Your task to perform on an android device: clear history in the chrome app Image 0: 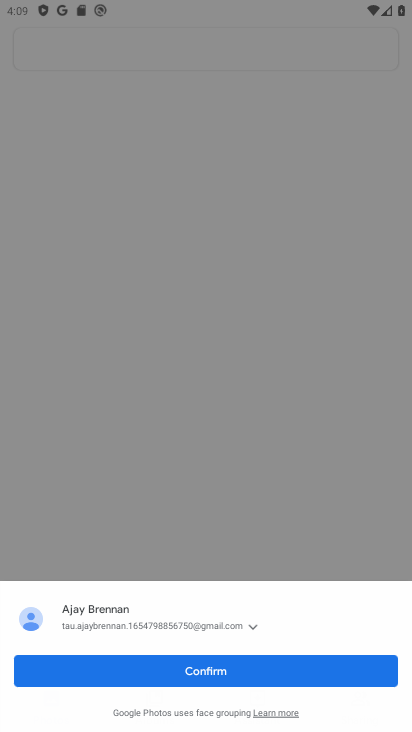
Step 0: press home button
Your task to perform on an android device: clear history in the chrome app Image 1: 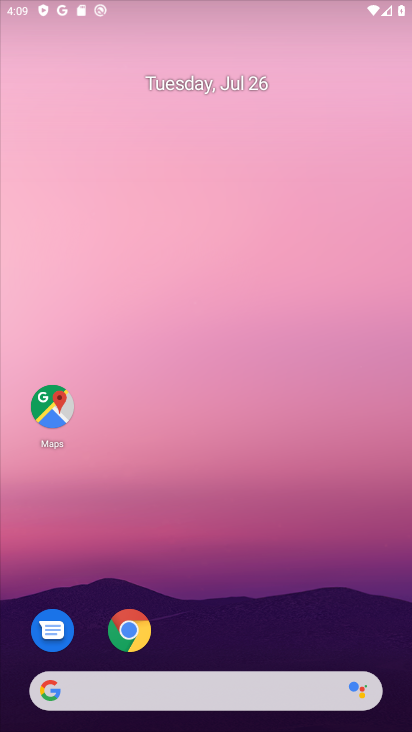
Step 1: drag from (285, 555) to (261, 80)
Your task to perform on an android device: clear history in the chrome app Image 2: 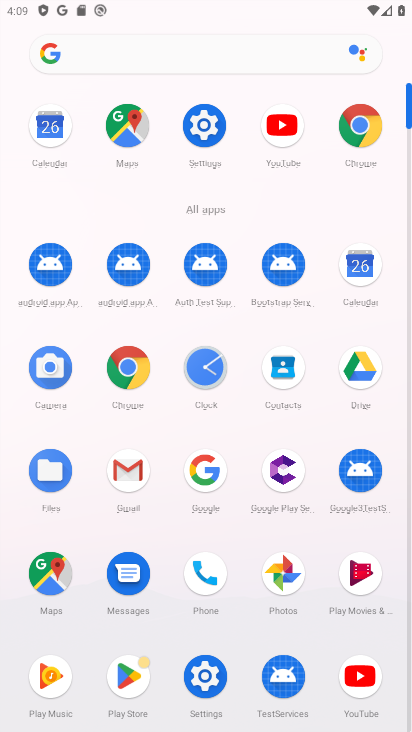
Step 2: click (357, 121)
Your task to perform on an android device: clear history in the chrome app Image 3: 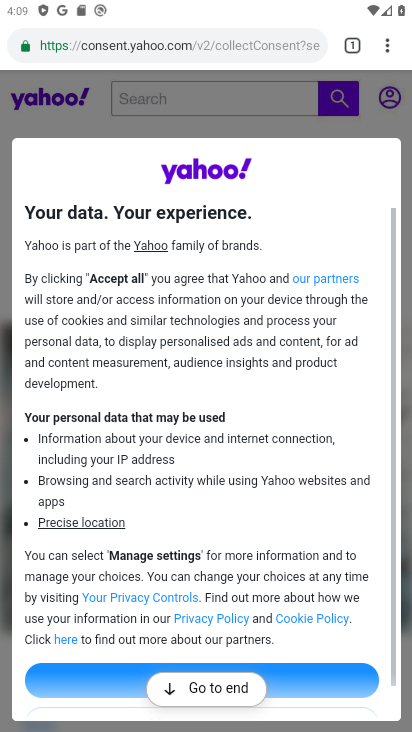
Step 3: drag from (383, 46) to (221, 271)
Your task to perform on an android device: clear history in the chrome app Image 4: 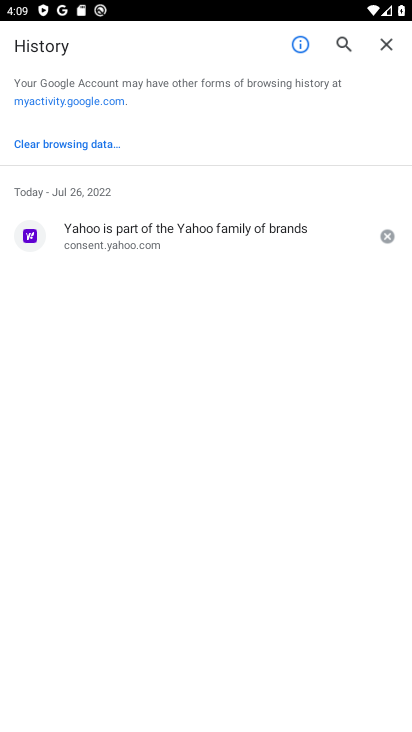
Step 4: click (83, 148)
Your task to perform on an android device: clear history in the chrome app Image 5: 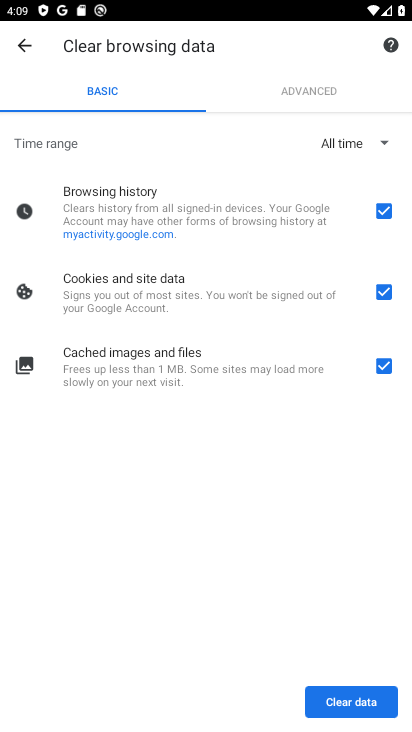
Step 5: click (359, 702)
Your task to perform on an android device: clear history in the chrome app Image 6: 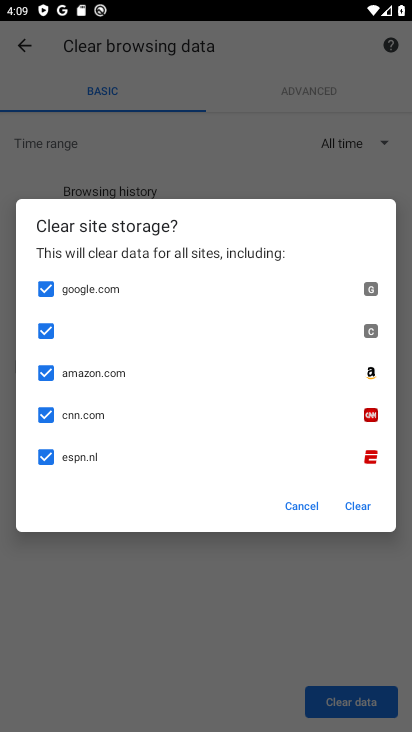
Step 6: click (368, 508)
Your task to perform on an android device: clear history in the chrome app Image 7: 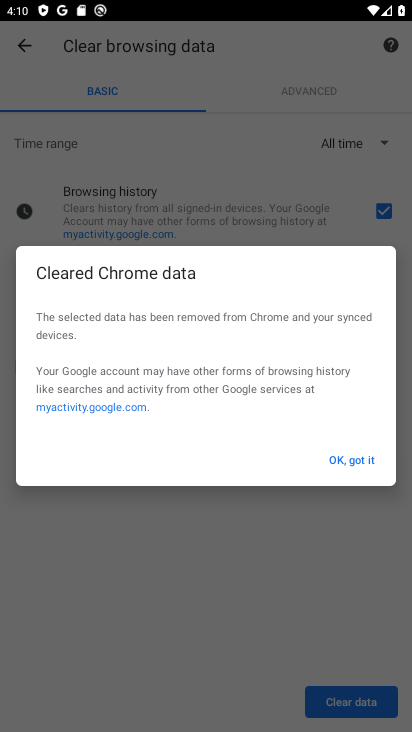
Step 7: task complete